Your task to perform on an android device: Open Google Image 0: 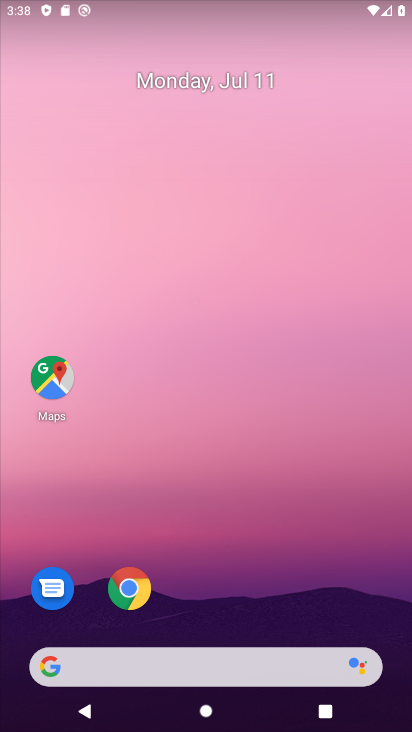
Step 0: press home button
Your task to perform on an android device: Open Google Image 1: 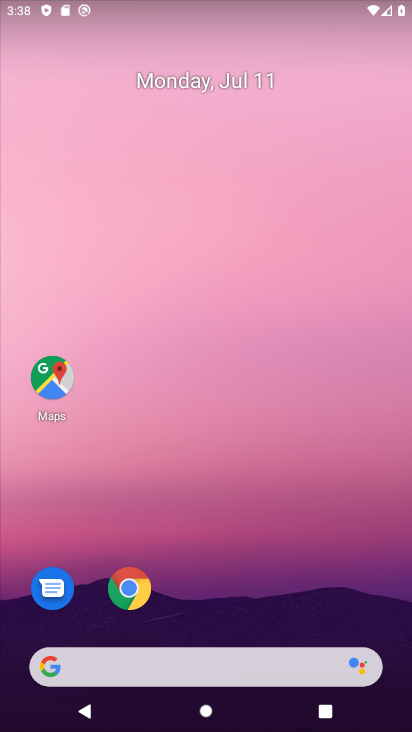
Step 1: click (43, 668)
Your task to perform on an android device: Open Google Image 2: 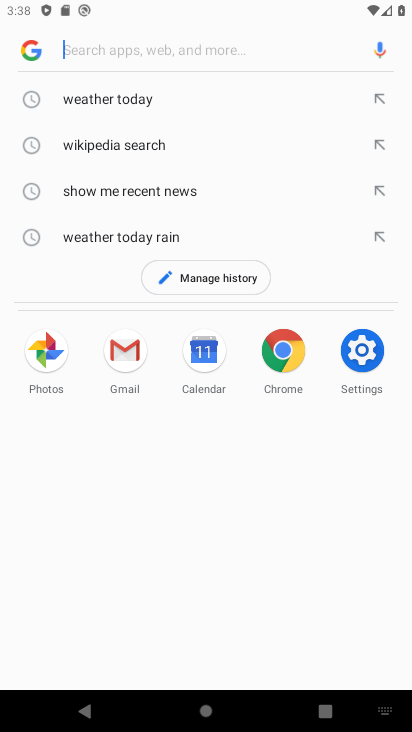
Step 2: task complete